Your task to perform on an android device: Go to Google maps Image 0: 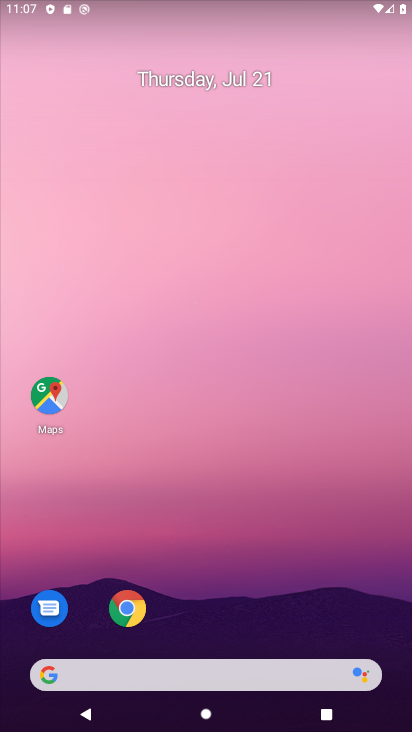
Step 0: click (69, 389)
Your task to perform on an android device: Go to Google maps Image 1: 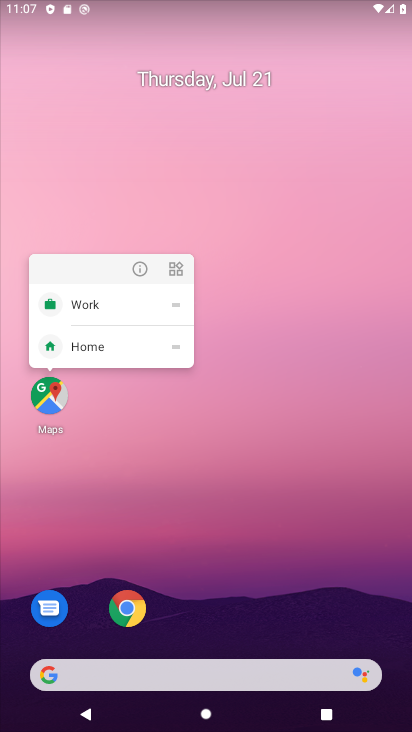
Step 1: click (50, 407)
Your task to perform on an android device: Go to Google maps Image 2: 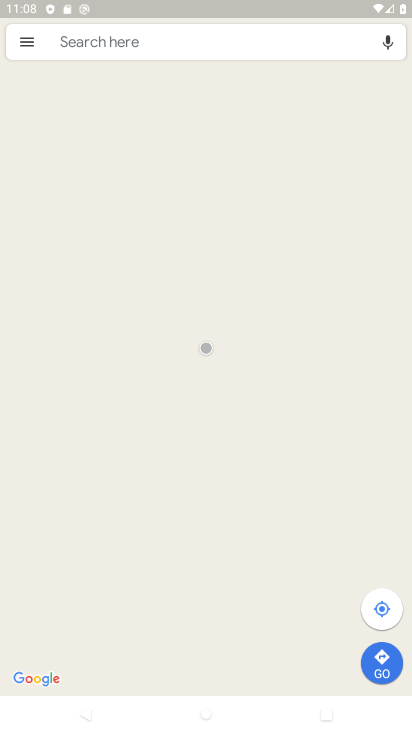
Step 2: task complete